Your task to perform on an android device: create a new album in the google photos Image 0: 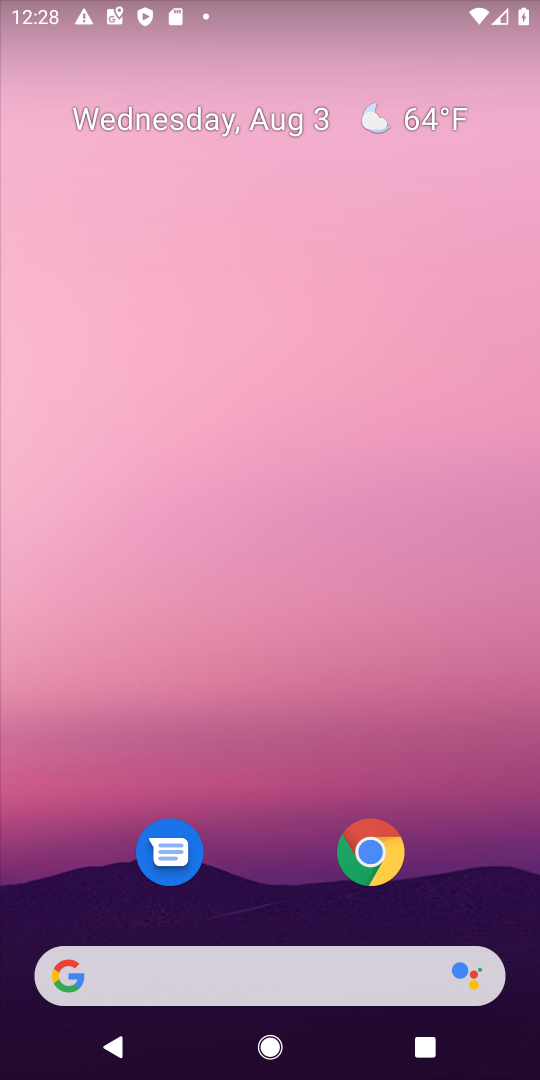
Step 0: drag from (500, 892) to (288, 87)
Your task to perform on an android device: create a new album in the google photos Image 1: 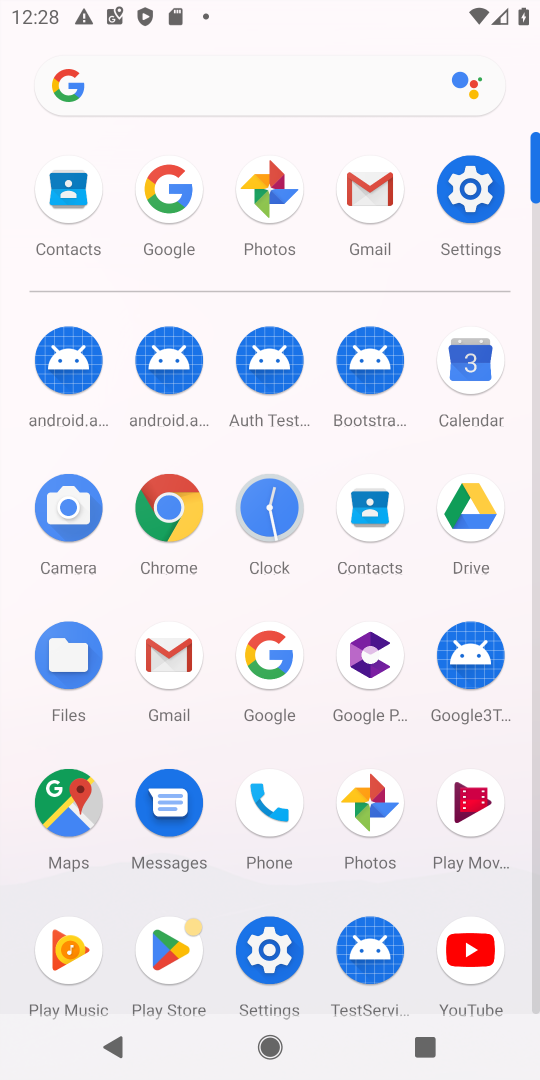
Step 1: click (372, 816)
Your task to perform on an android device: create a new album in the google photos Image 2: 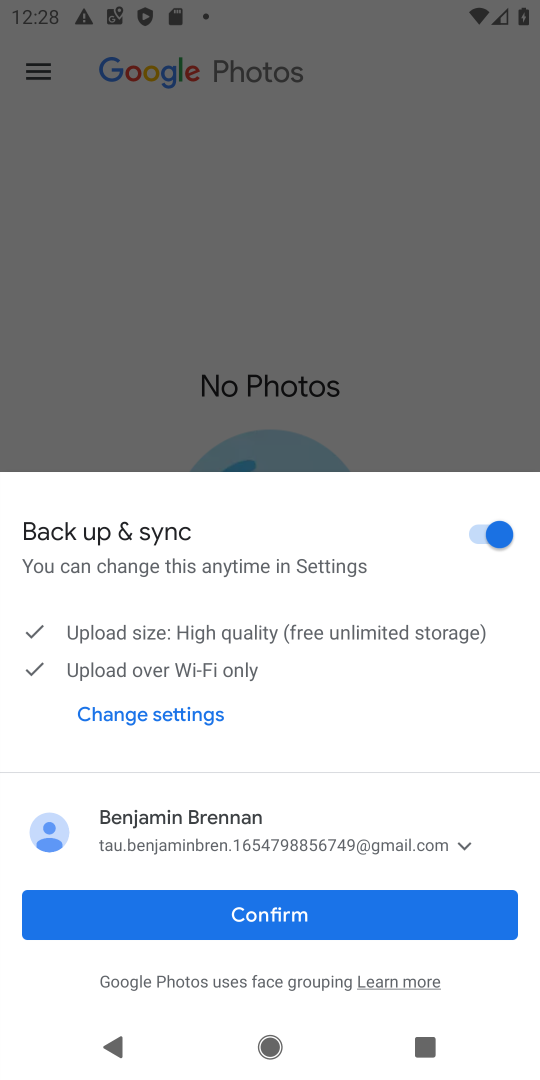
Step 2: click (278, 907)
Your task to perform on an android device: create a new album in the google photos Image 3: 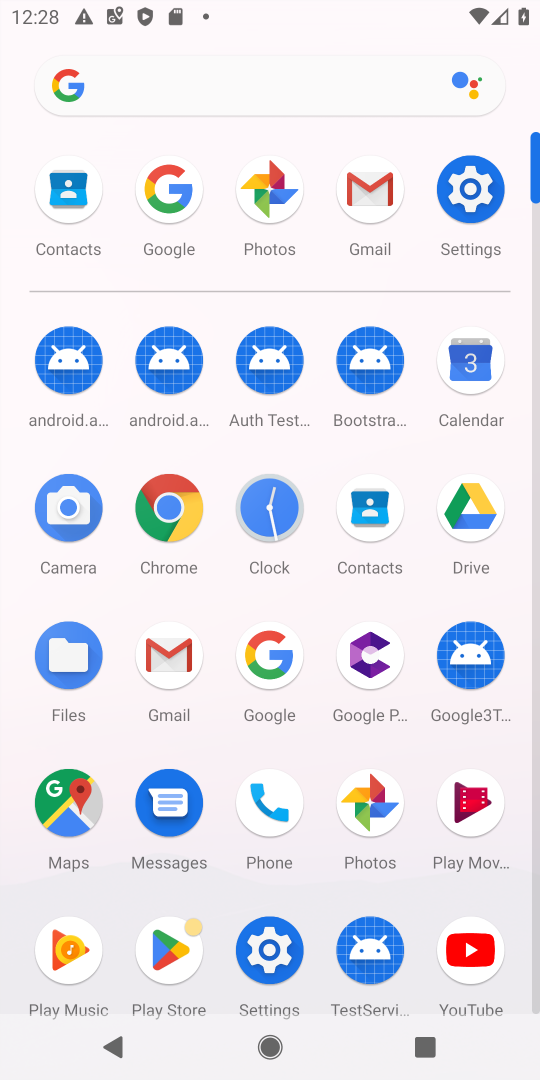
Step 3: click (361, 785)
Your task to perform on an android device: create a new album in the google photos Image 4: 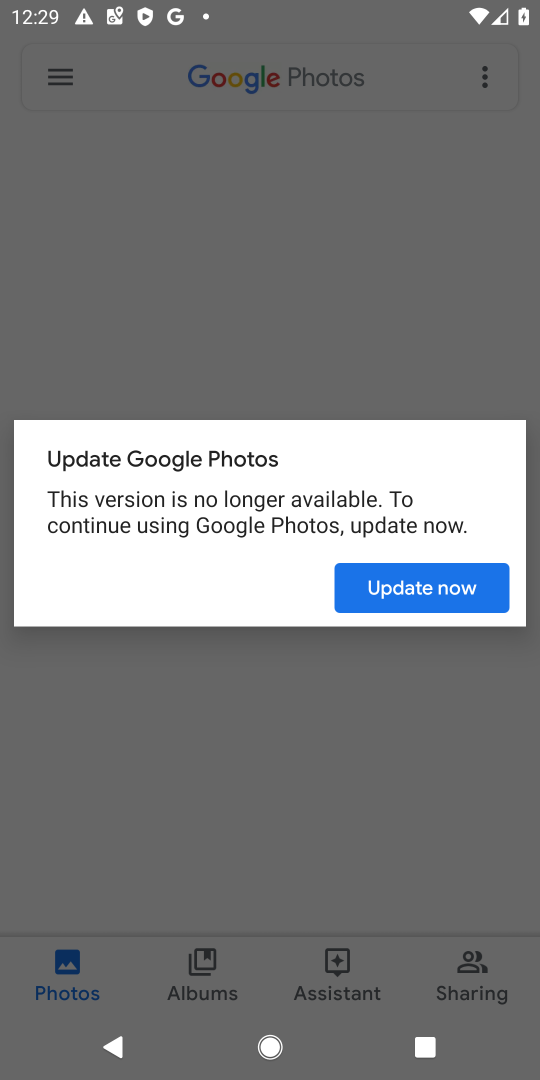
Step 4: task complete